Your task to perform on an android device: set an alarm Image 0: 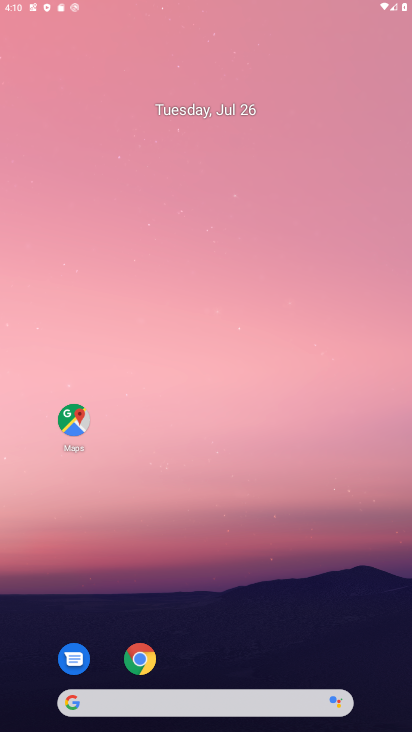
Step 0: drag from (206, 284) to (241, 56)
Your task to perform on an android device: set an alarm Image 1: 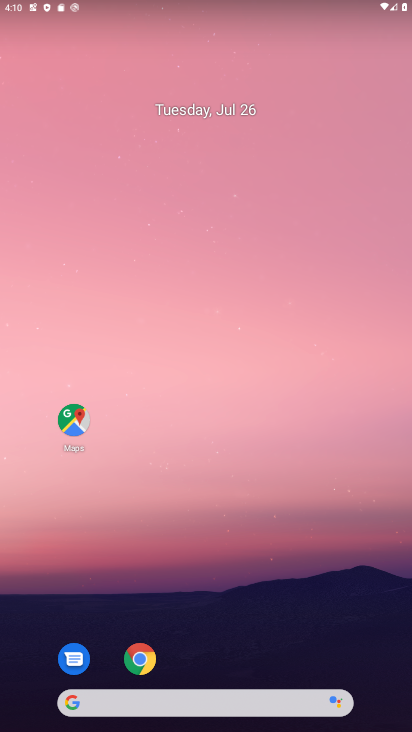
Step 1: drag from (256, 624) to (247, 89)
Your task to perform on an android device: set an alarm Image 2: 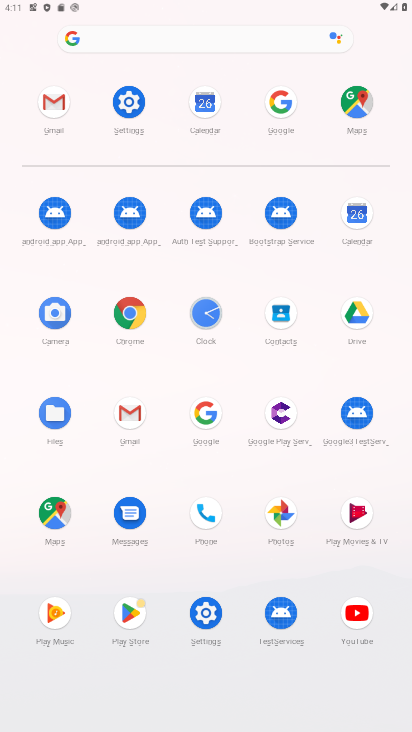
Step 2: click (206, 314)
Your task to perform on an android device: set an alarm Image 3: 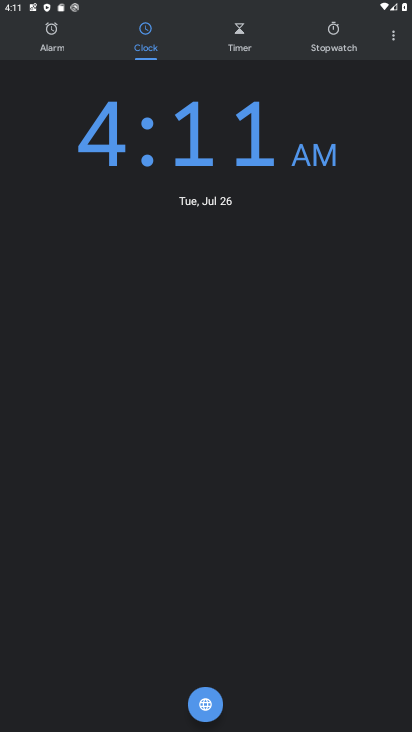
Step 3: click (54, 36)
Your task to perform on an android device: set an alarm Image 4: 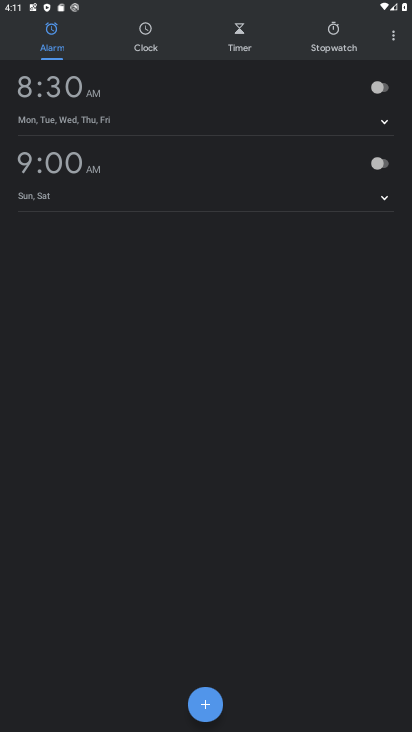
Step 4: click (380, 85)
Your task to perform on an android device: set an alarm Image 5: 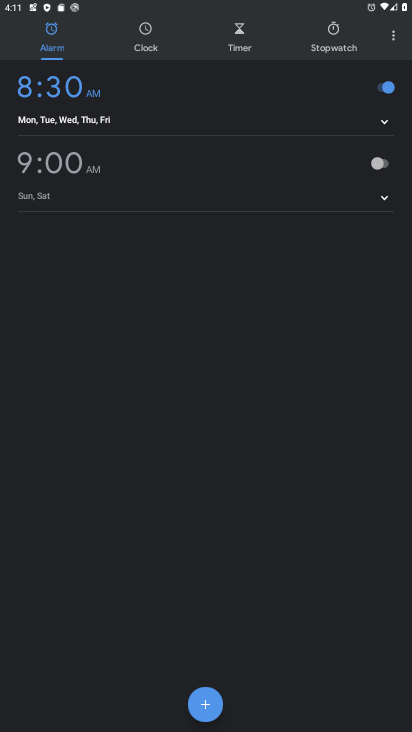
Step 5: task complete